Your task to perform on an android device: change keyboard looks Image 0: 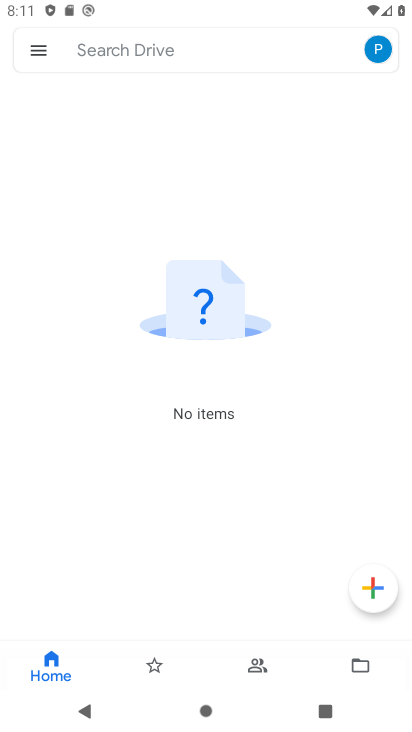
Step 0: press home button
Your task to perform on an android device: change keyboard looks Image 1: 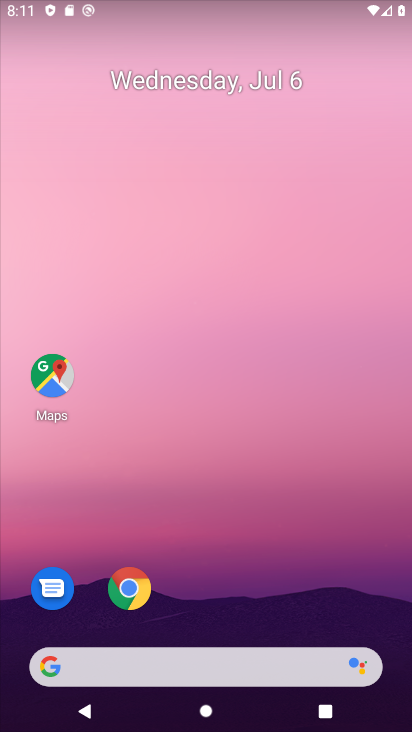
Step 1: drag from (246, 623) to (153, 110)
Your task to perform on an android device: change keyboard looks Image 2: 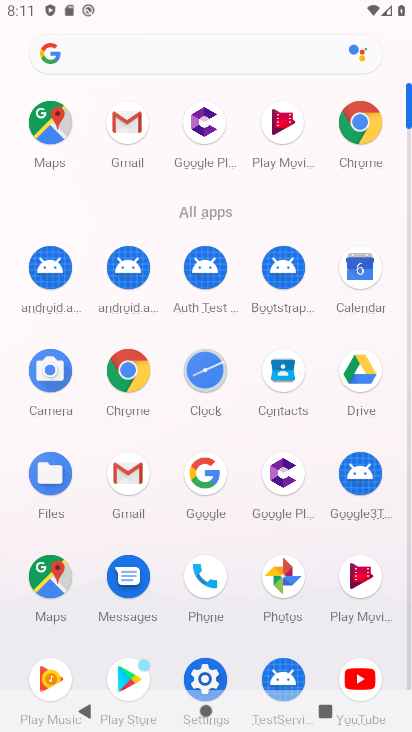
Step 2: click (205, 666)
Your task to perform on an android device: change keyboard looks Image 3: 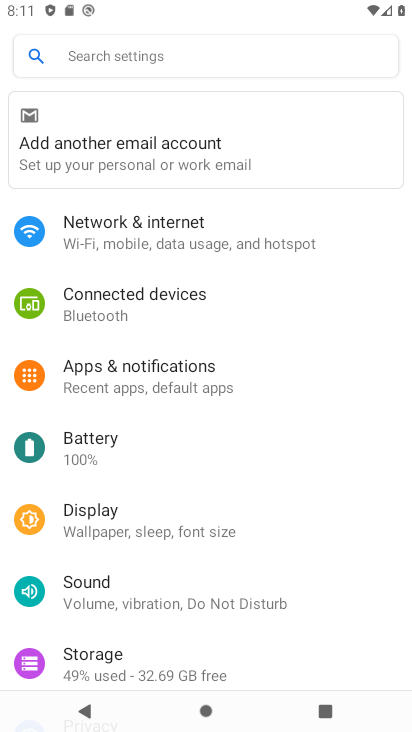
Step 3: drag from (178, 677) to (119, 69)
Your task to perform on an android device: change keyboard looks Image 4: 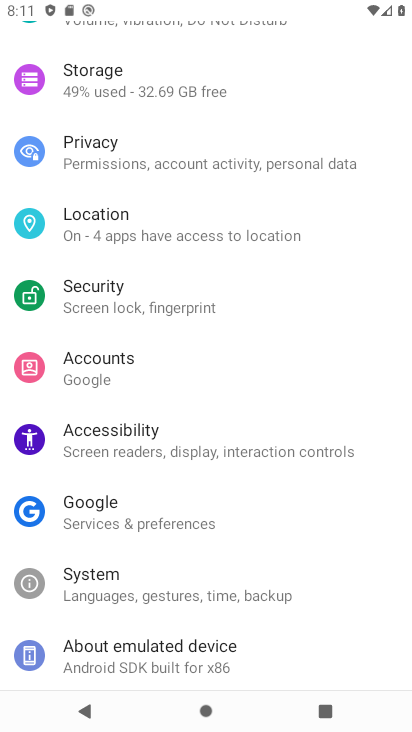
Step 4: click (176, 601)
Your task to perform on an android device: change keyboard looks Image 5: 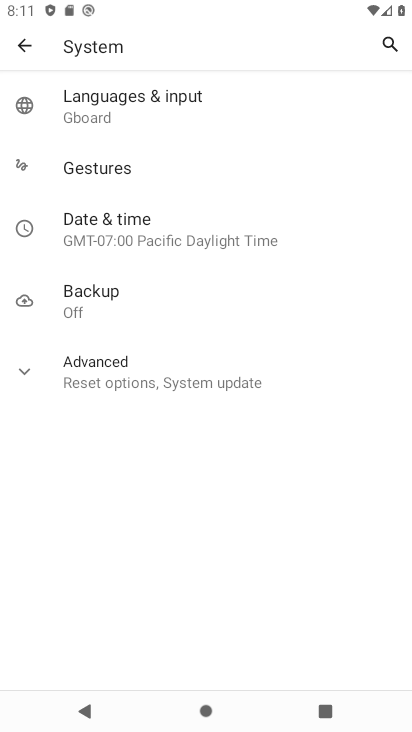
Step 5: click (206, 105)
Your task to perform on an android device: change keyboard looks Image 6: 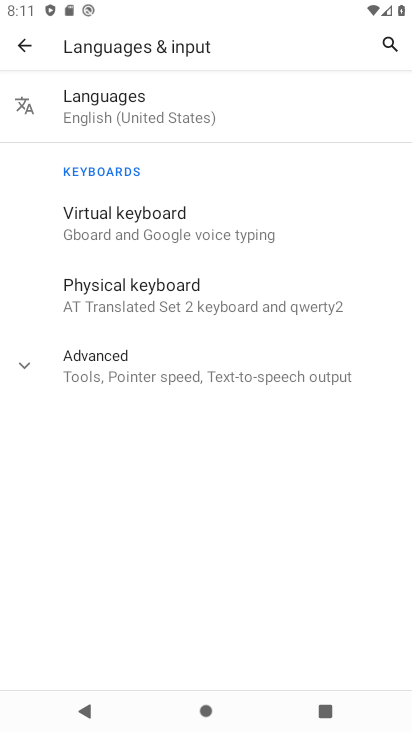
Step 6: click (201, 225)
Your task to perform on an android device: change keyboard looks Image 7: 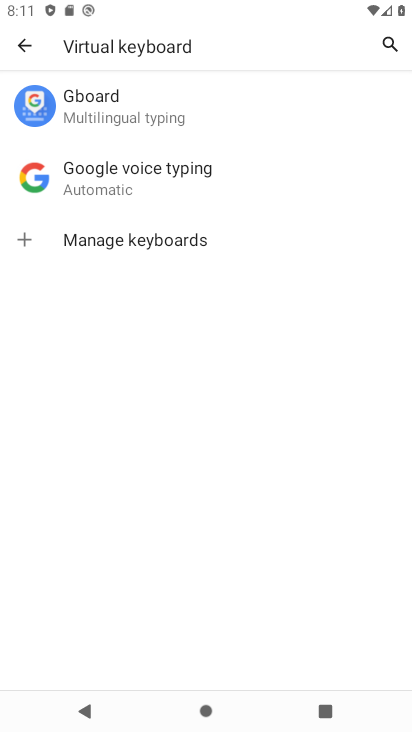
Step 7: click (195, 117)
Your task to perform on an android device: change keyboard looks Image 8: 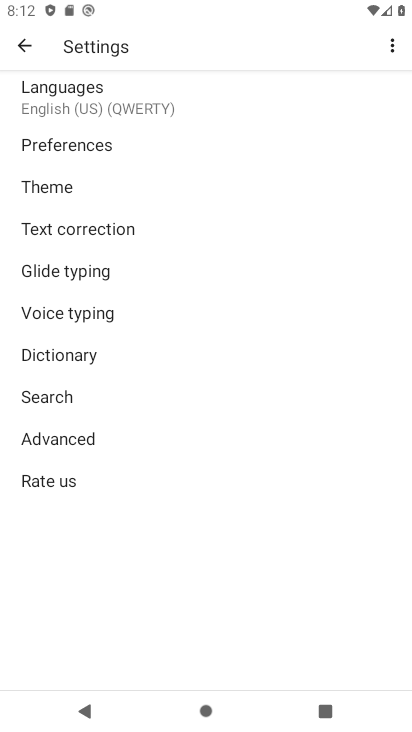
Step 8: click (164, 179)
Your task to perform on an android device: change keyboard looks Image 9: 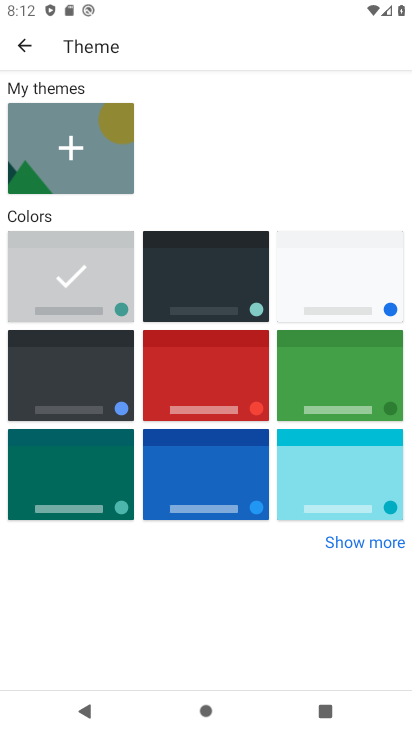
Step 9: click (190, 234)
Your task to perform on an android device: change keyboard looks Image 10: 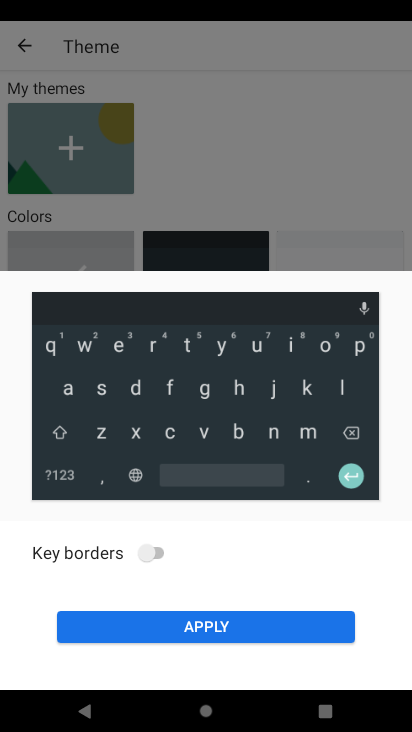
Step 10: click (230, 627)
Your task to perform on an android device: change keyboard looks Image 11: 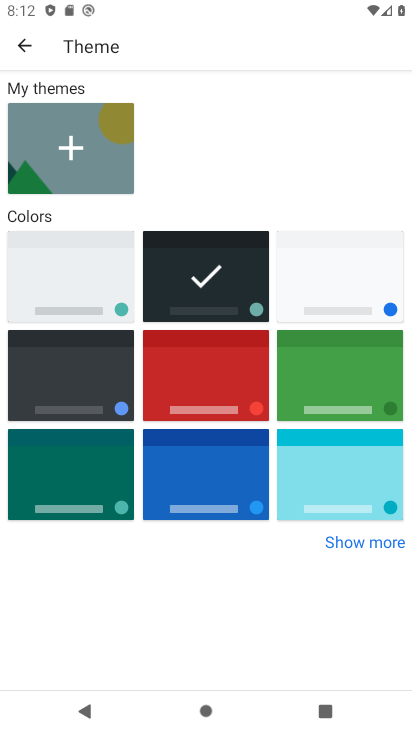
Step 11: task complete